Your task to perform on an android device: Open Android settings Image 0: 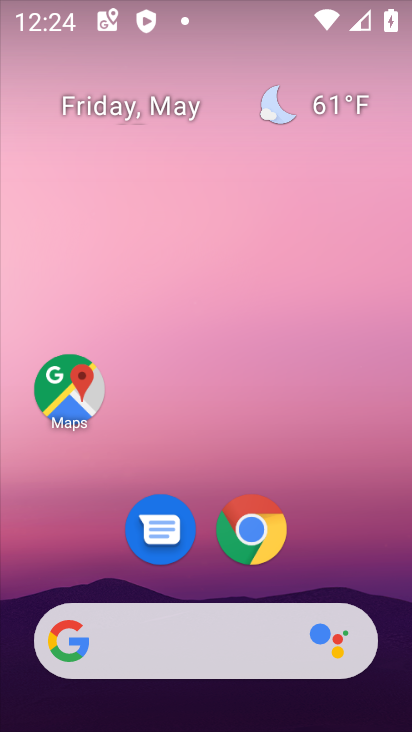
Step 0: drag from (367, 533) to (288, 84)
Your task to perform on an android device: Open Android settings Image 1: 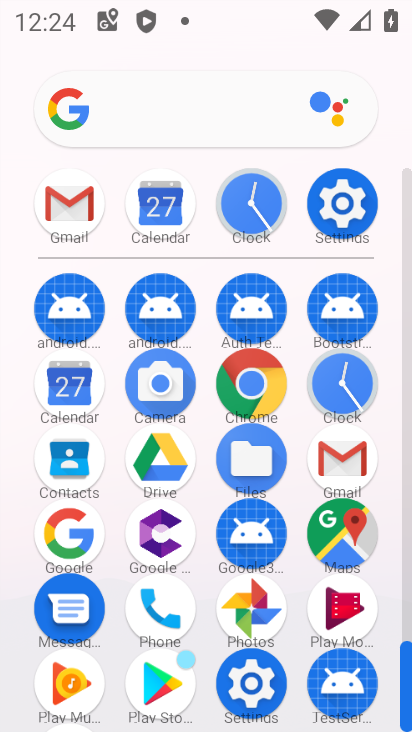
Step 1: click (331, 208)
Your task to perform on an android device: Open Android settings Image 2: 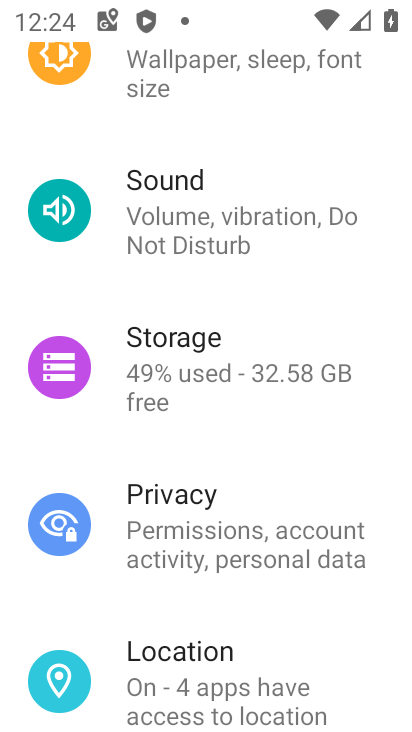
Step 2: task complete